Your task to perform on an android device: set default search engine in the chrome app Image 0: 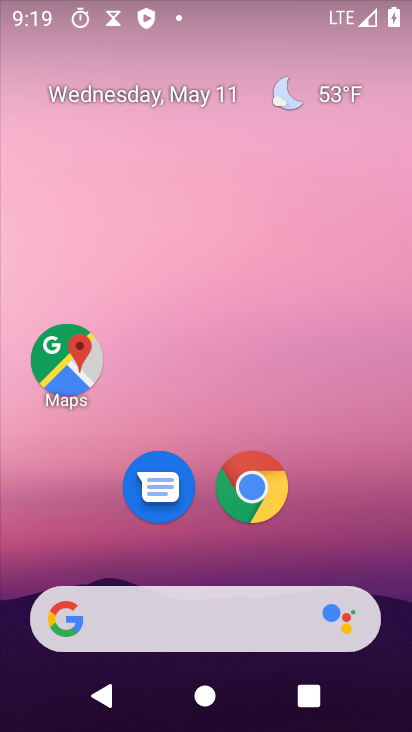
Step 0: click (252, 484)
Your task to perform on an android device: set default search engine in the chrome app Image 1: 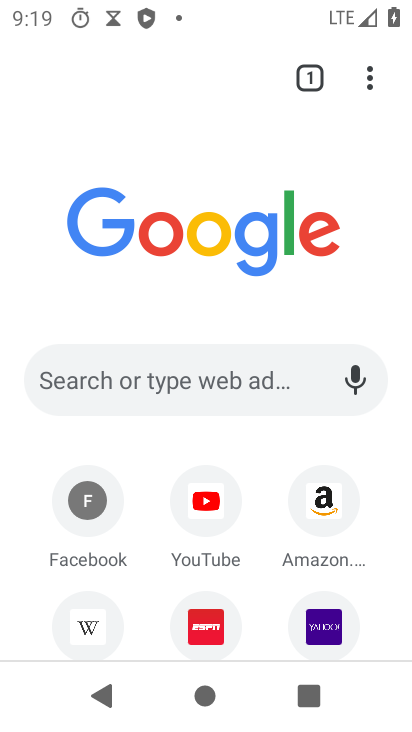
Step 1: click (370, 79)
Your task to perform on an android device: set default search engine in the chrome app Image 2: 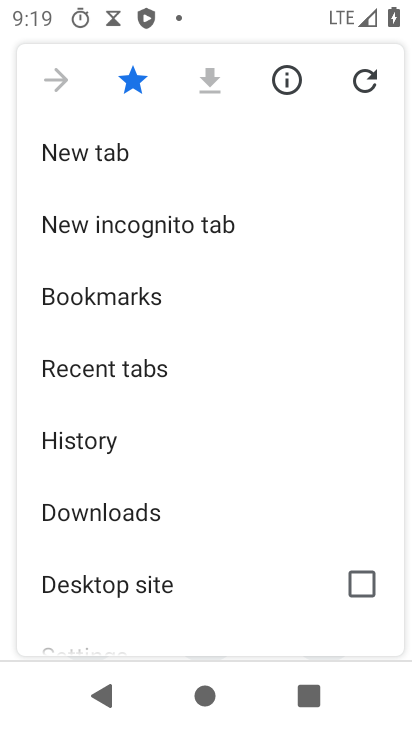
Step 2: drag from (157, 477) to (234, 315)
Your task to perform on an android device: set default search engine in the chrome app Image 3: 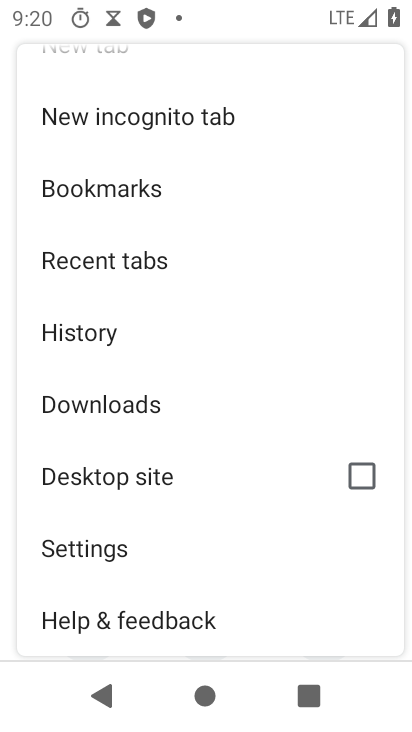
Step 3: click (106, 549)
Your task to perform on an android device: set default search engine in the chrome app Image 4: 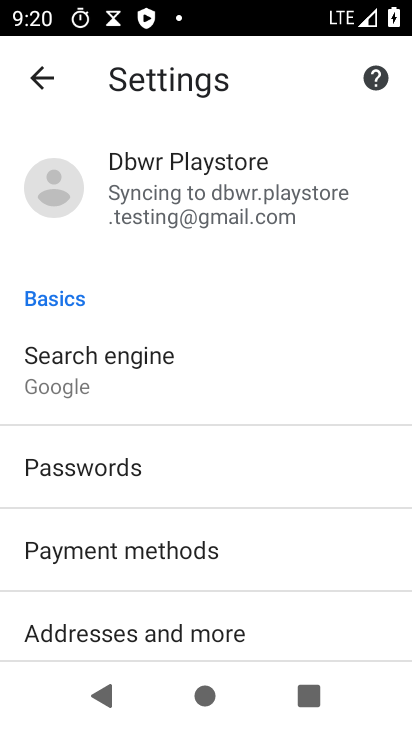
Step 4: click (115, 368)
Your task to perform on an android device: set default search engine in the chrome app Image 5: 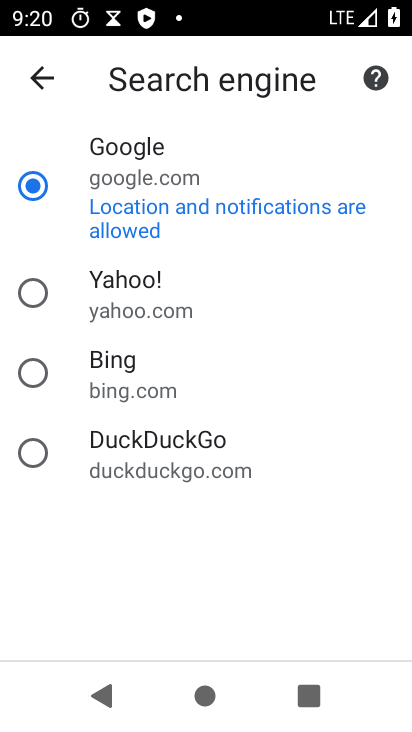
Step 5: click (31, 181)
Your task to perform on an android device: set default search engine in the chrome app Image 6: 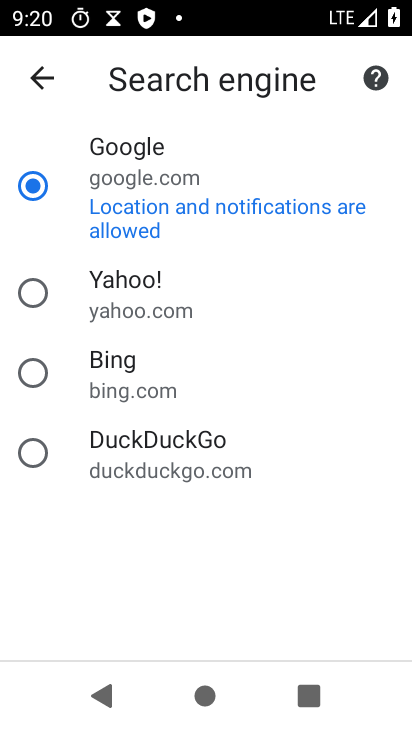
Step 6: task complete